Your task to perform on an android device: allow notifications from all sites in the chrome app Image 0: 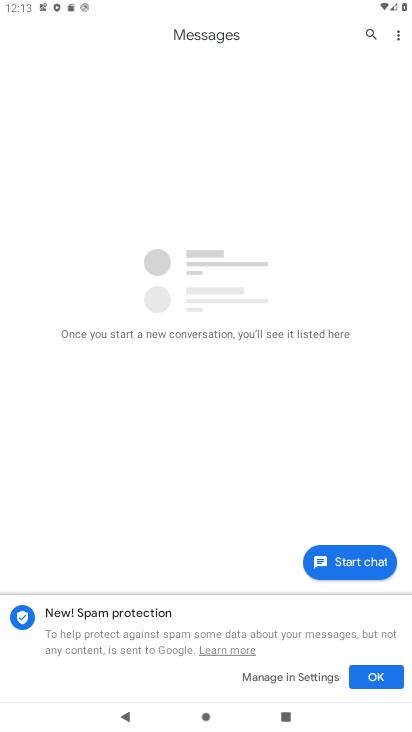
Step 0: press home button
Your task to perform on an android device: allow notifications from all sites in the chrome app Image 1: 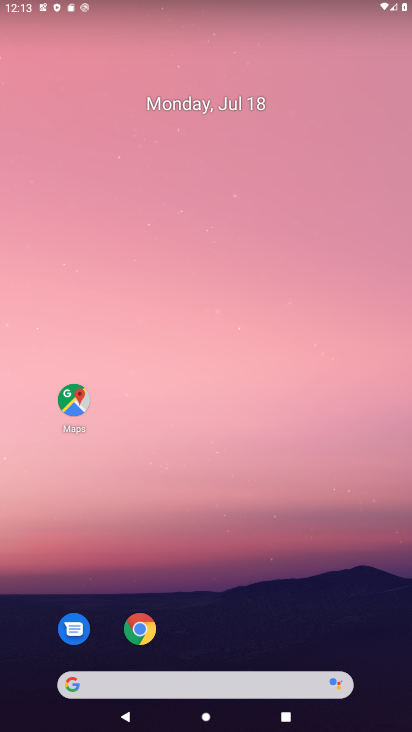
Step 1: click (137, 619)
Your task to perform on an android device: allow notifications from all sites in the chrome app Image 2: 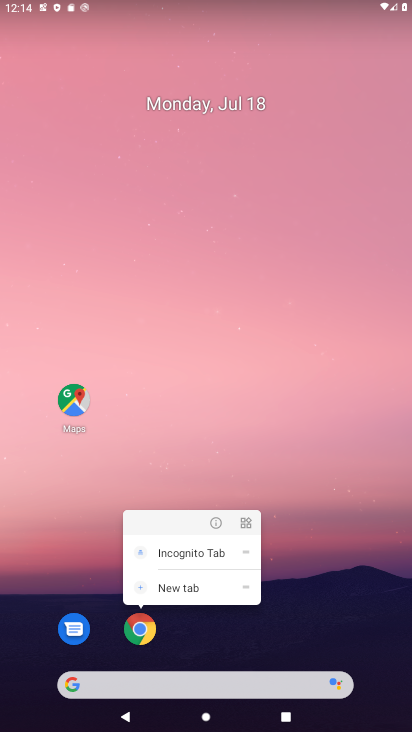
Step 2: click (139, 623)
Your task to perform on an android device: allow notifications from all sites in the chrome app Image 3: 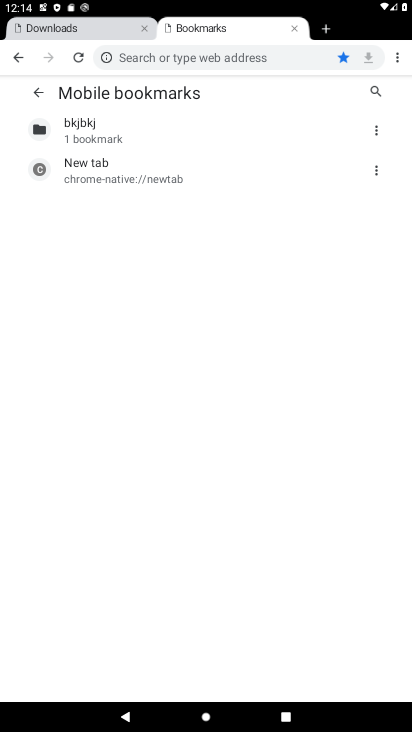
Step 3: click (396, 59)
Your task to perform on an android device: allow notifications from all sites in the chrome app Image 4: 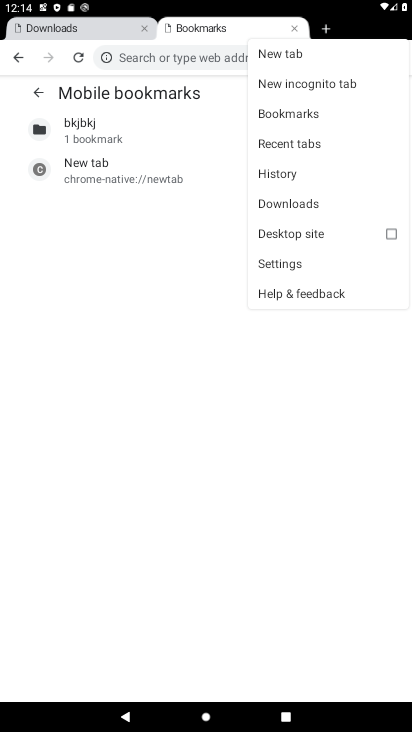
Step 4: click (309, 260)
Your task to perform on an android device: allow notifications from all sites in the chrome app Image 5: 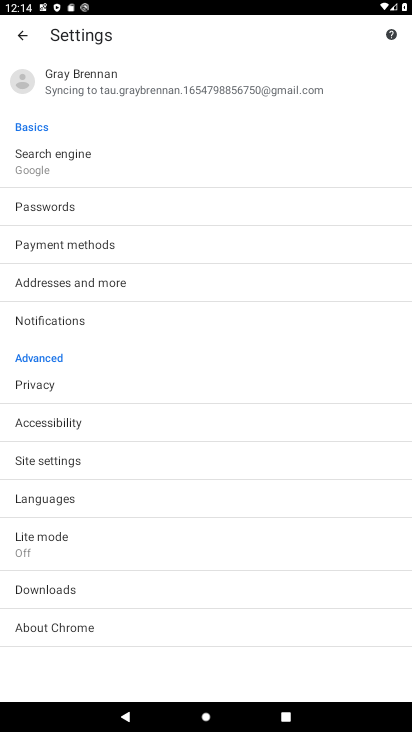
Step 5: click (93, 463)
Your task to perform on an android device: allow notifications from all sites in the chrome app Image 6: 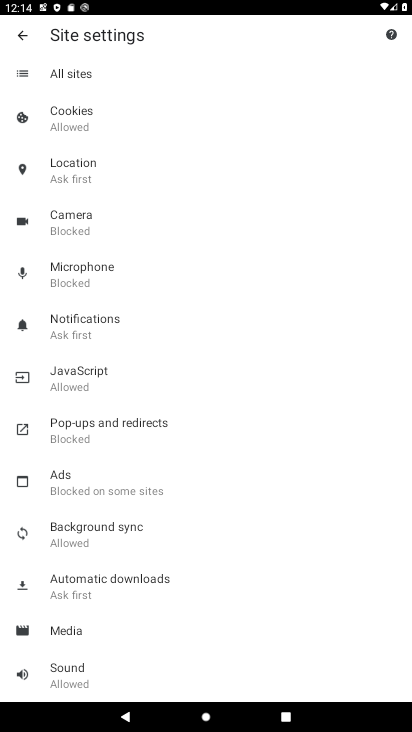
Step 6: click (98, 73)
Your task to perform on an android device: allow notifications from all sites in the chrome app Image 7: 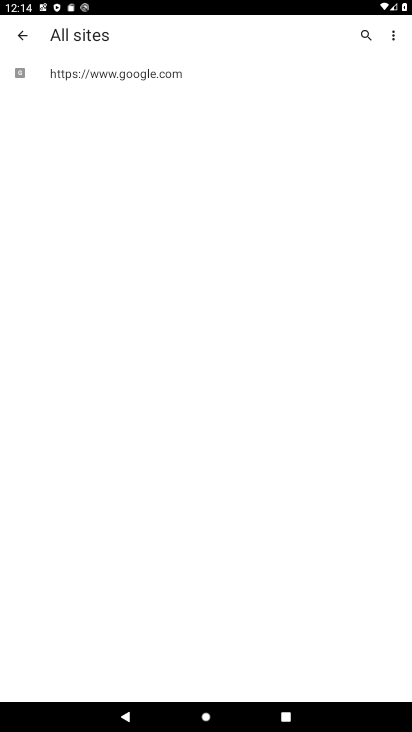
Step 7: click (142, 76)
Your task to perform on an android device: allow notifications from all sites in the chrome app Image 8: 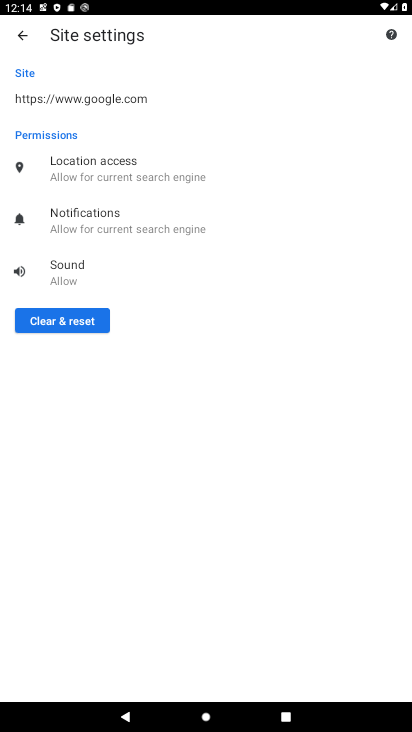
Step 8: task complete